Your task to perform on an android device: Search for custom t-shirts on Etsy. Image 0: 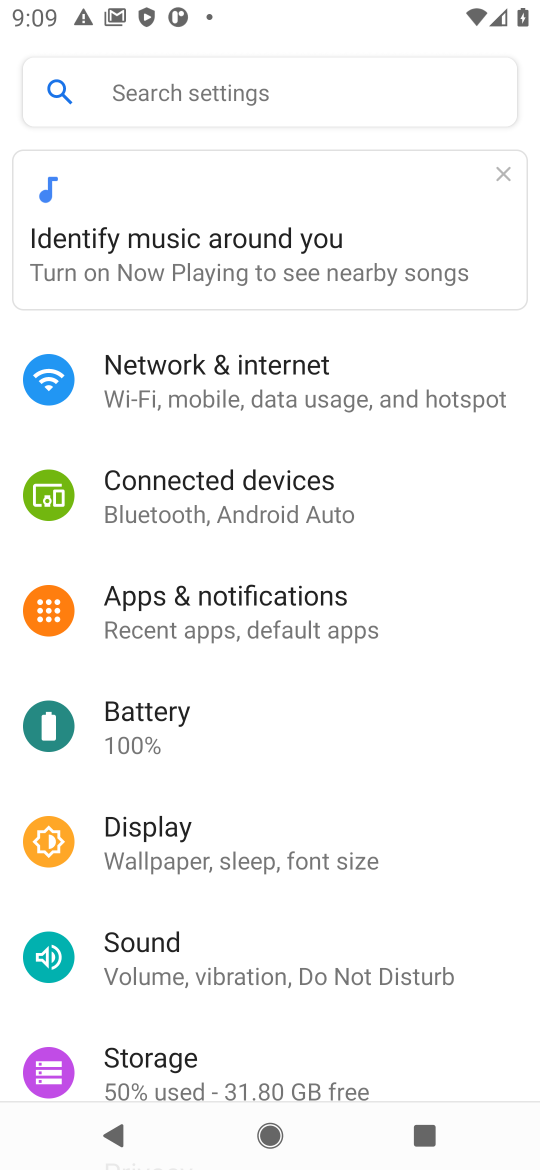
Step 0: press home button
Your task to perform on an android device: Search for custom t-shirts on Etsy. Image 1: 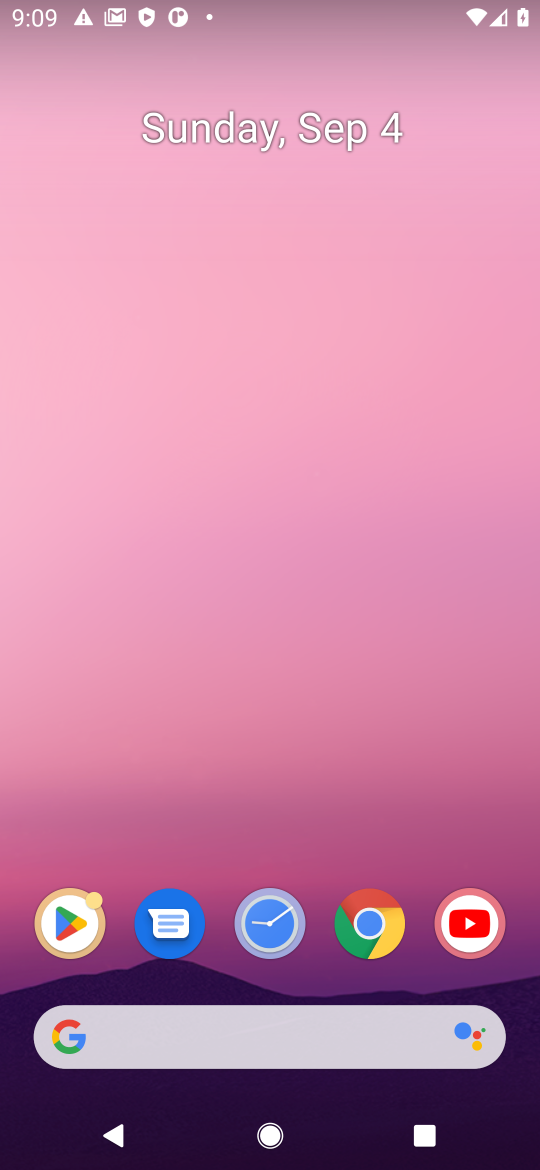
Step 1: click (387, 1038)
Your task to perform on an android device: Search for custom t-shirts on Etsy. Image 2: 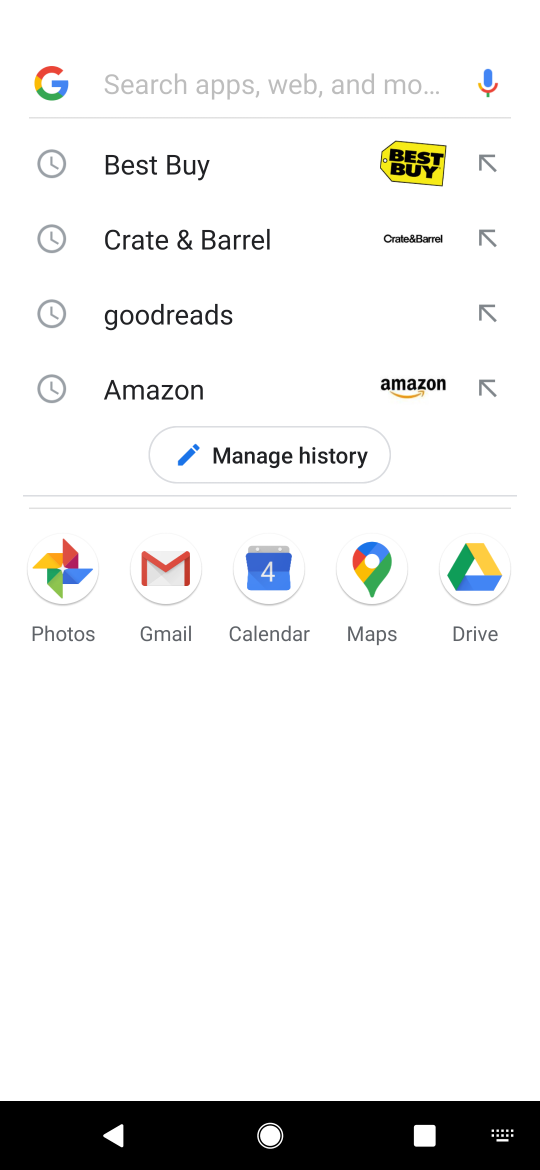
Step 2: press enter
Your task to perform on an android device: Search for custom t-shirts on Etsy. Image 3: 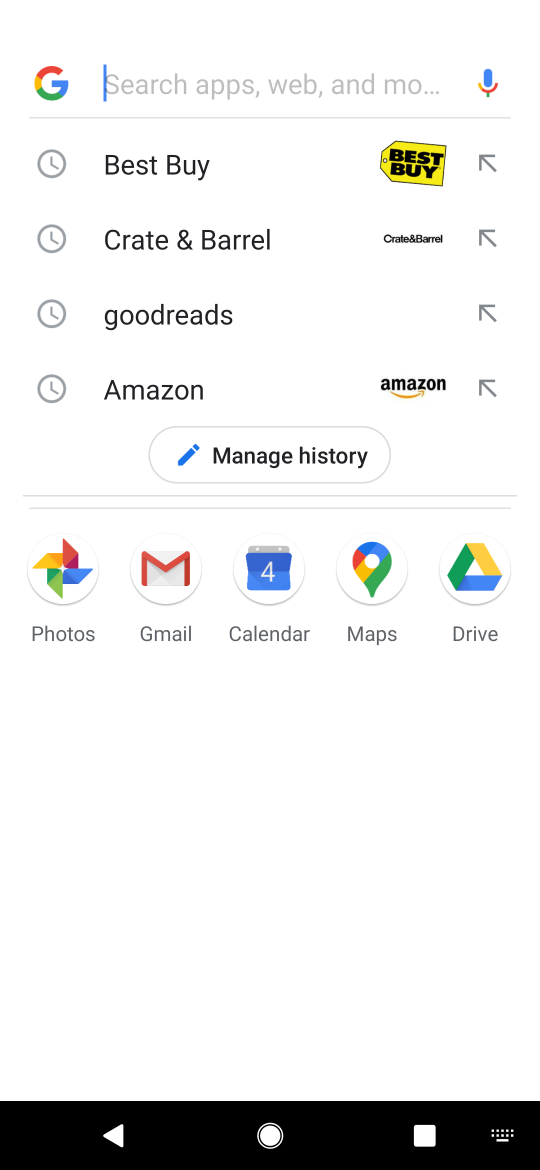
Step 3: type "etsy"
Your task to perform on an android device: Search for custom t-shirts on Etsy. Image 4: 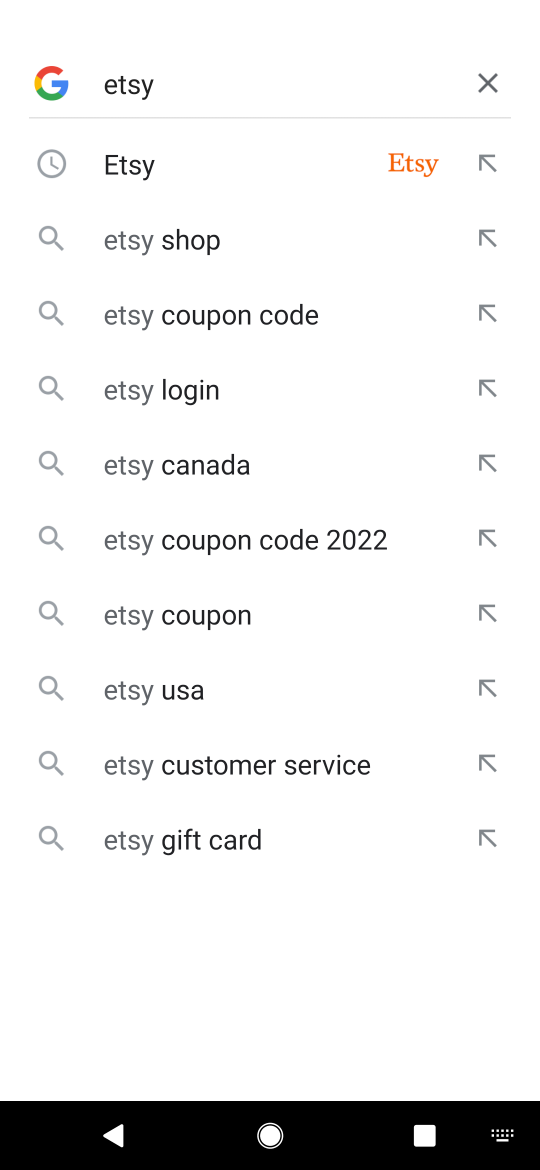
Step 4: click (220, 169)
Your task to perform on an android device: Search for custom t-shirts on Etsy. Image 5: 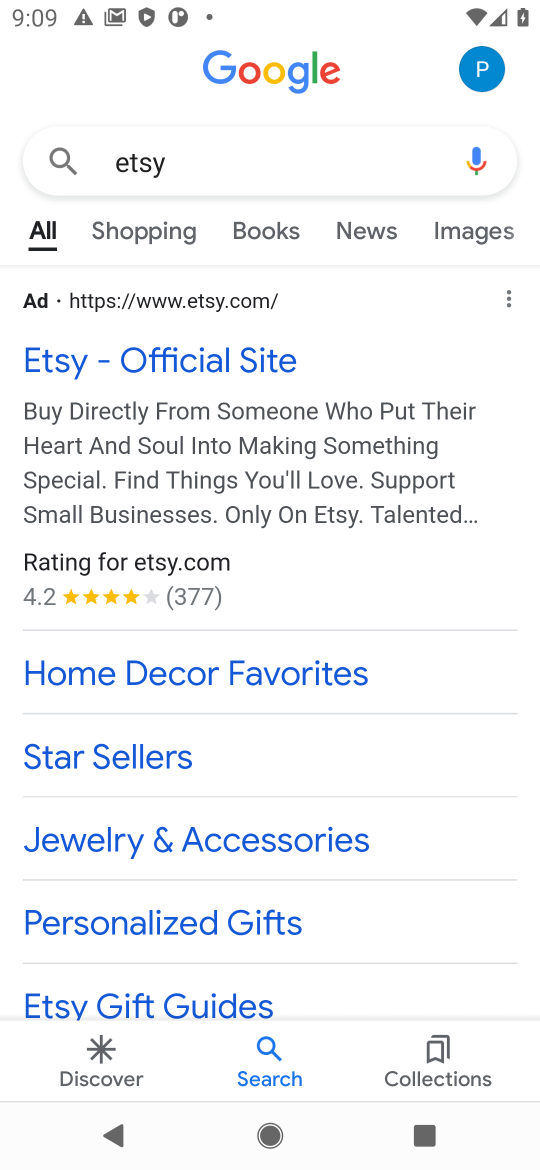
Step 5: click (233, 349)
Your task to perform on an android device: Search for custom t-shirts on Etsy. Image 6: 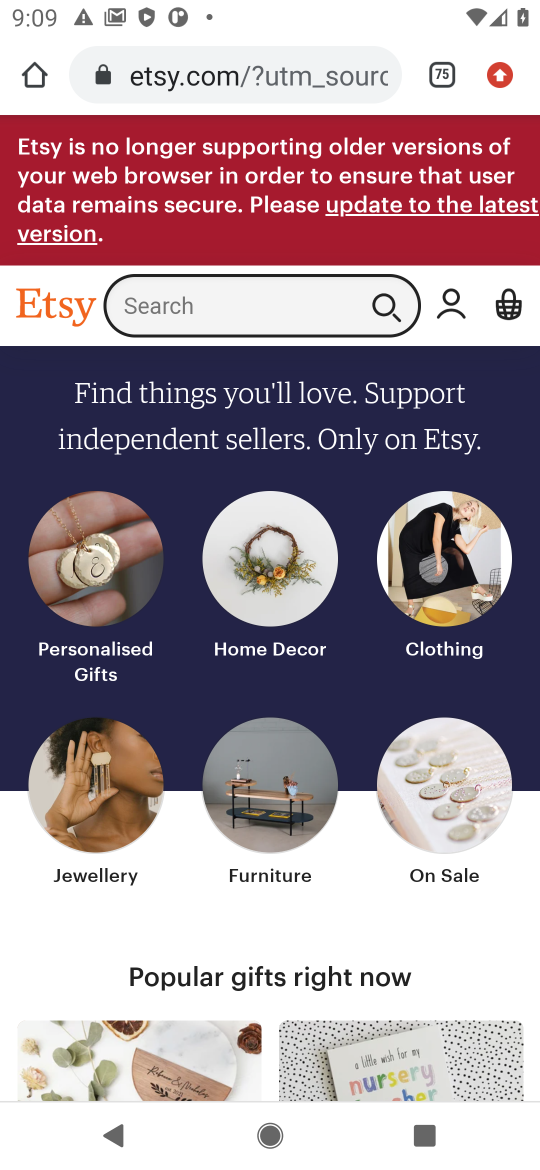
Step 6: click (238, 287)
Your task to perform on an android device: Search for custom t-shirts on Etsy. Image 7: 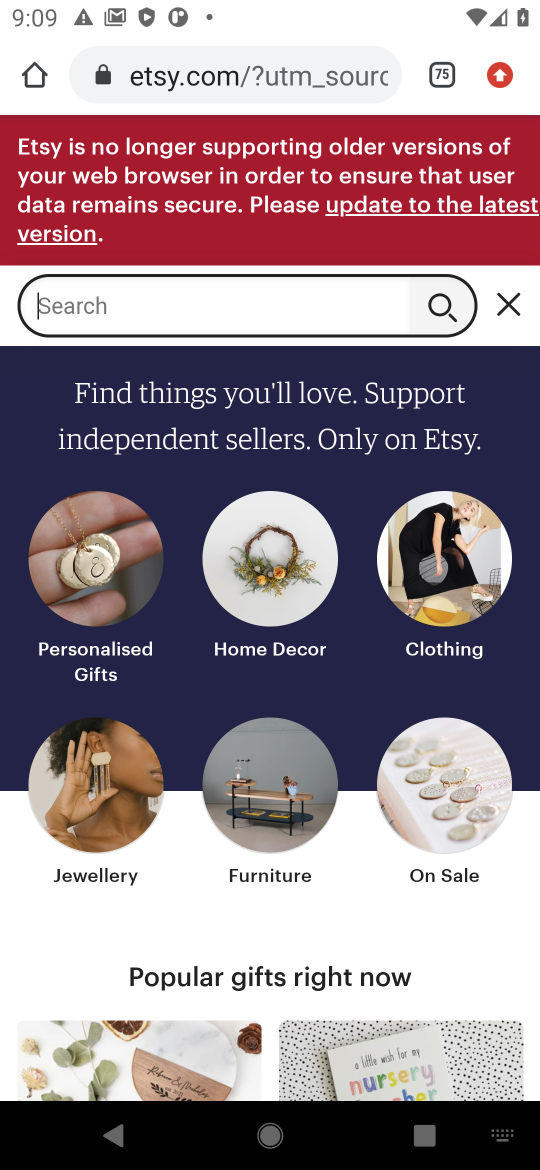
Step 7: type "custom t shirts"
Your task to perform on an android device: Search for custom t-shirts on Etsy. Image 8: 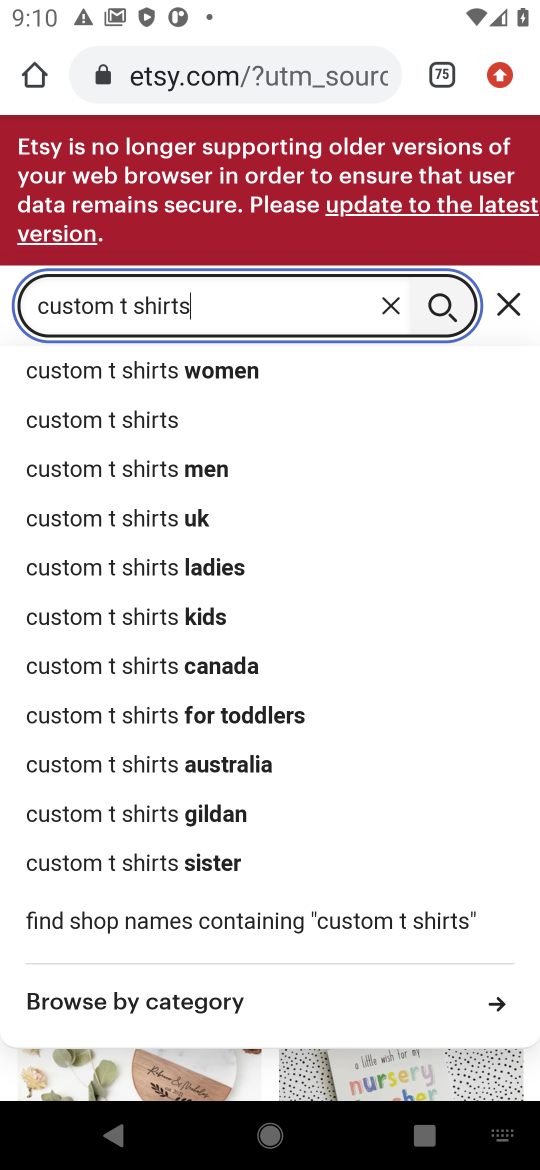
Step 8: click (151, 422)
Your task to perform on an android device: Search for custom t-shirts on Etsy. Image 9: 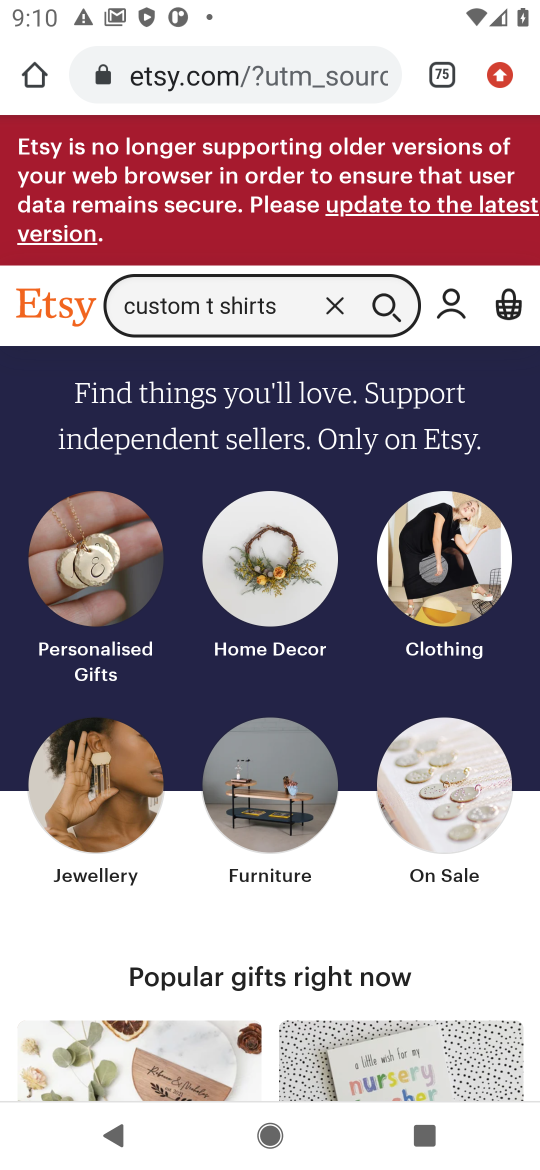
Step 9: click (387, 305)
Your task to perform on an android device: Search for custom t-shirts on Etsy. Image 10: 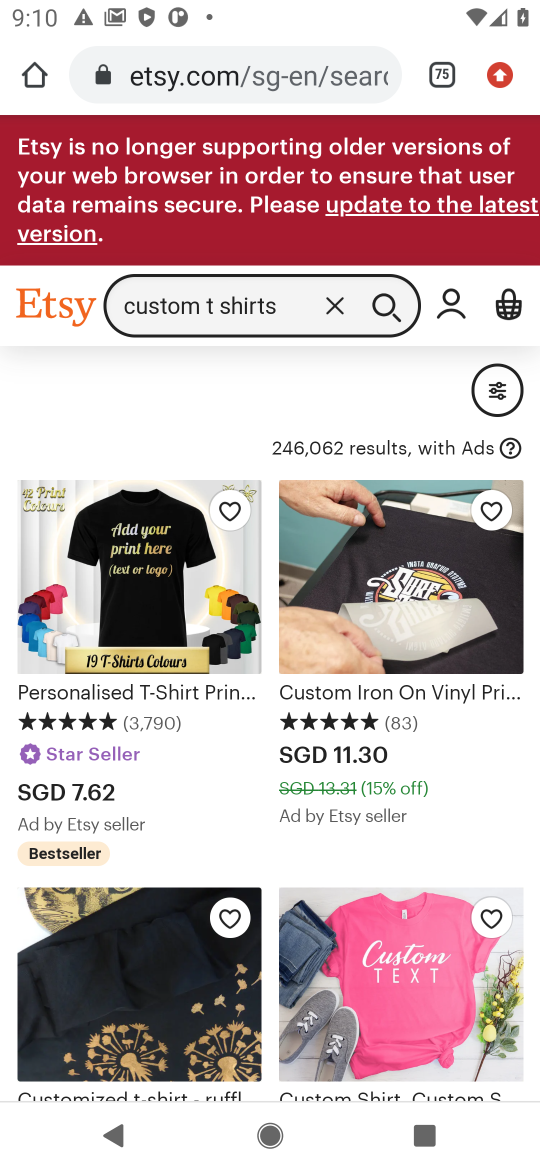
Step 10: task complete